Your task to perform on an android device: turn off notifications settings in the gmail app Image 0: 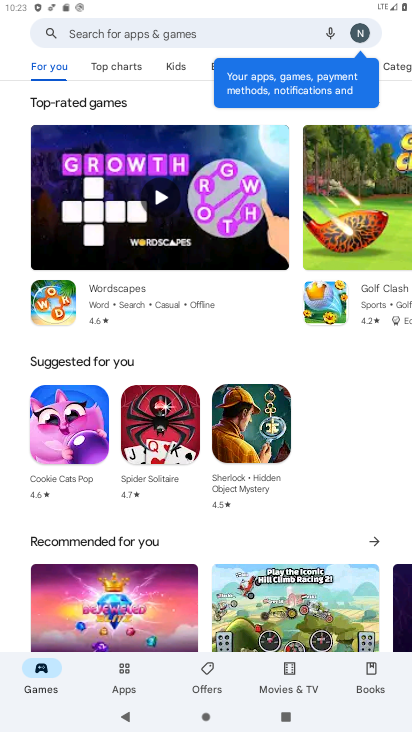
Step 0: press home button
Your task to perform on an android device: turn off notifications settings in the gmail app Image 1: 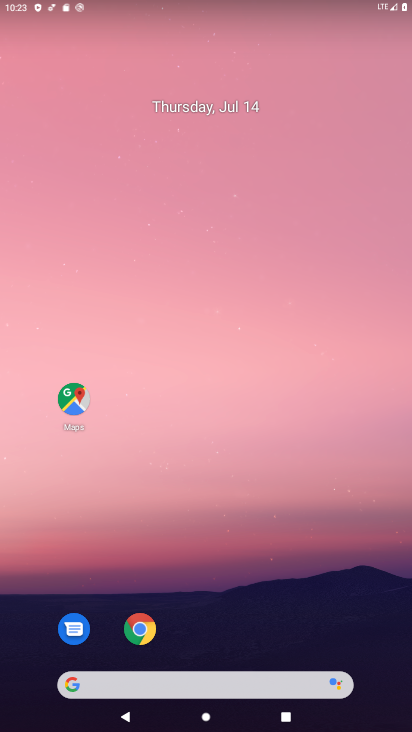
Step 1: drag from (214, 661) to (303, 49)
Your task to perform on an android device: turn off notifications settings in the gmail app Image 2: 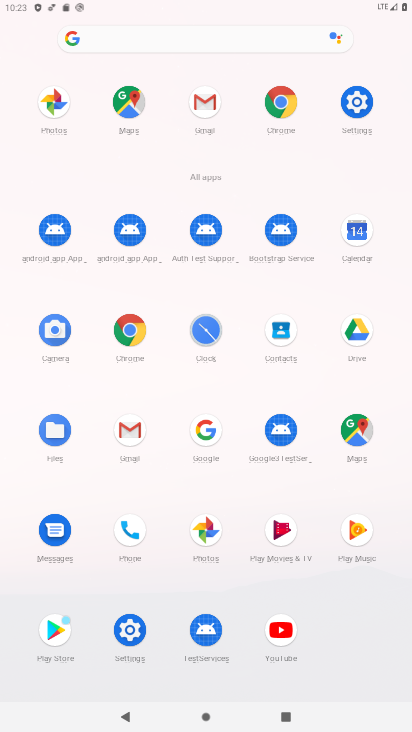
Step 2: click (133, 441)
Your task to perform on an android device: turn off notifications settings in the gmail app Image 3: 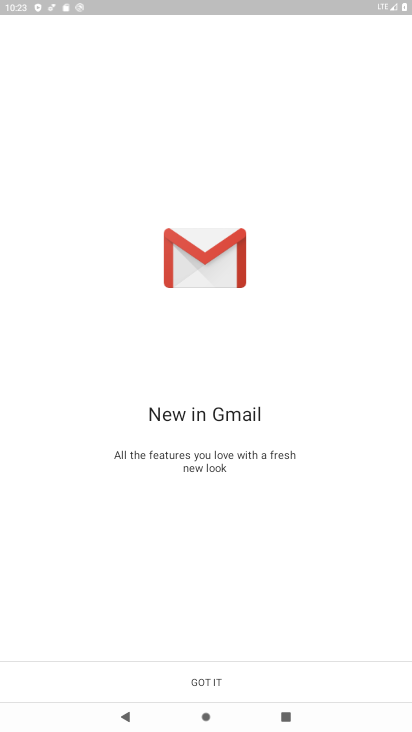
Step 3: click (238, 678)
Your task to perform on an android device: turn off notifications settings in the gmail app Image 4: 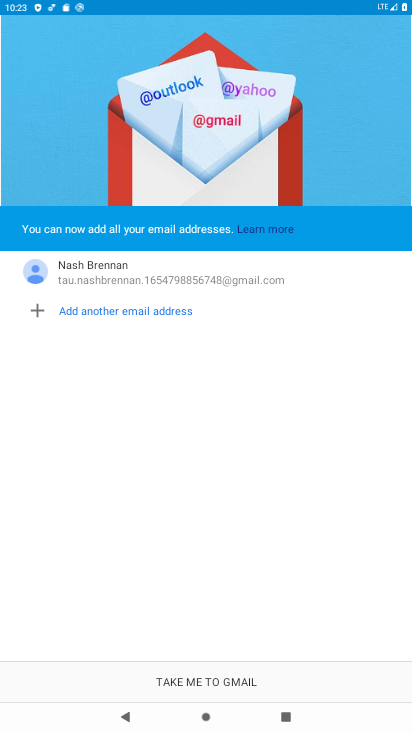
Step 4: click (237, 677)
Your task to perform on an android device: turn off notifications settings in the gmail app Image 5: 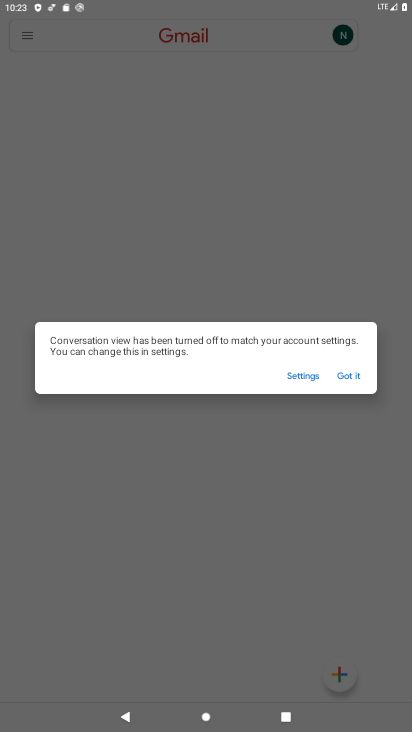
Step 5: click (350, 380)
Your task to perform on an android device: turn off notifications settings in the gmail app Image 6: 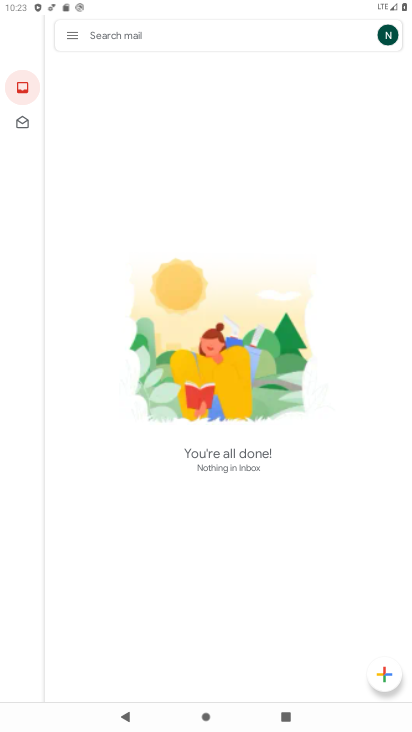
Step 6: click (81, 37)
Your task to perform on an android device: turn off notifications settings in the gmail app Image 7: 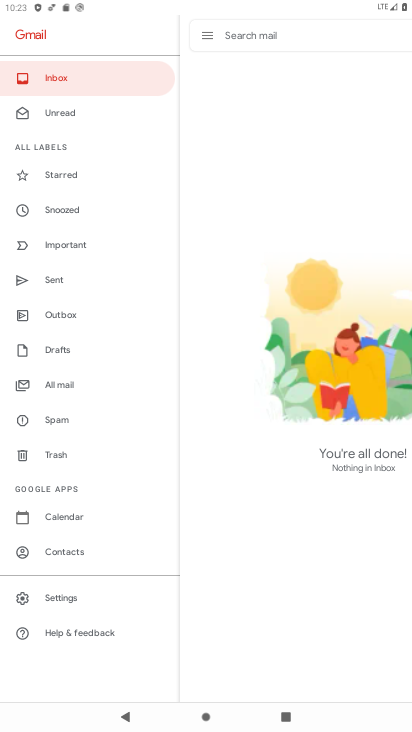
Step 7: click (47, 592)
Your task to perform on an android device: turn off notifications settings in the gmail app Image 8: 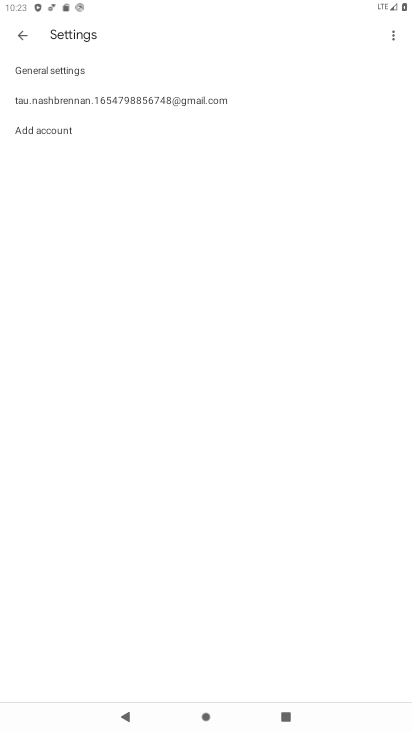
Step 8: click (268, 106)
Your task to perform on an android device: turn off notifications settings in the gmail app Image 9: 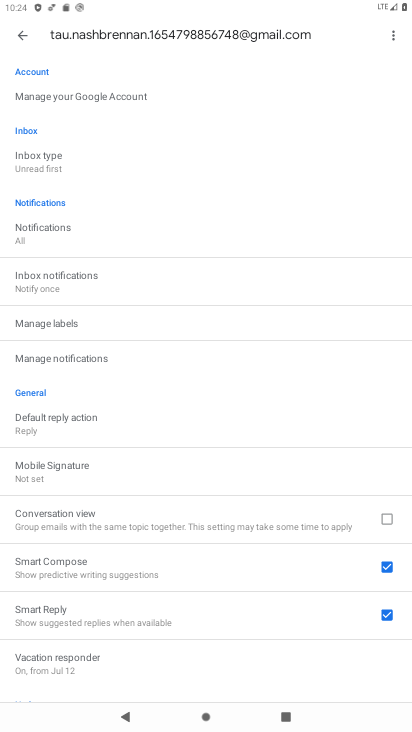
Step 9: click (144, 356)
Your task to perform on an android device: turn off notifications settings in the gmail app Image 10: 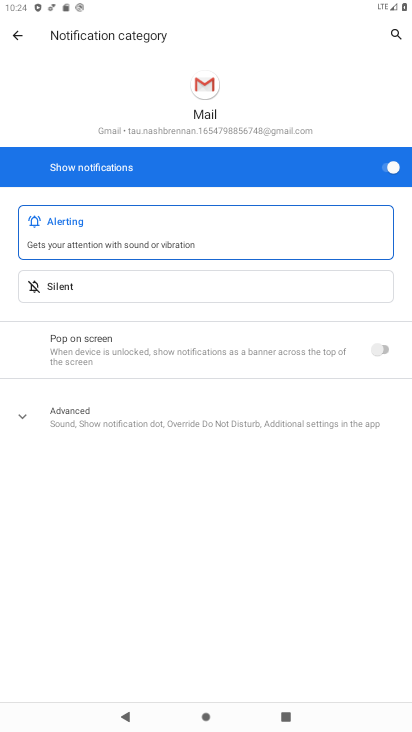
Step 10: click (394, 169)
Your task to perform on an android device: turn off notifications settings in the gmail app Image 11: 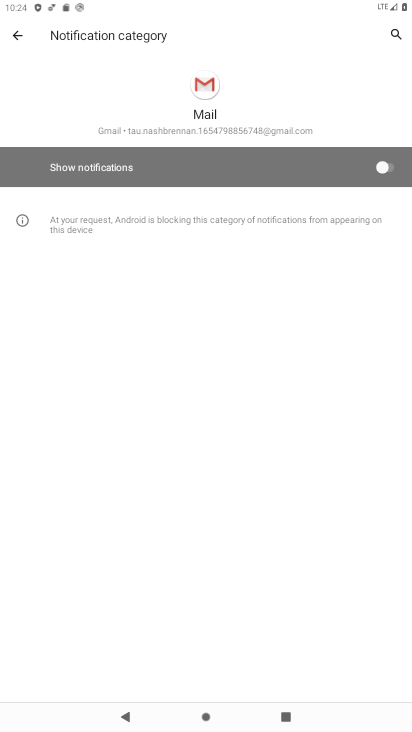
Step 11: task complete